Your task to perform on an android device: open a new tab in the chrome app Image 0: 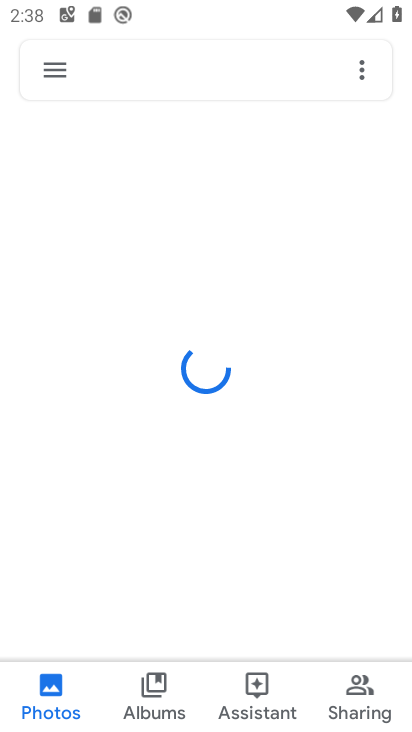
Step 0: press home button
Your task to perform on an android device: open a new tab in the chrome app Image 1: 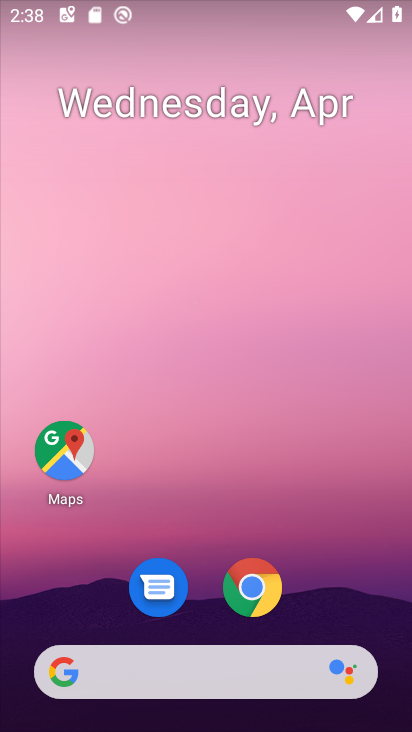
Step 1: drag from (368, 606) to (221, 78)
Your task to perform on an android device: open a new tab in the chrome app Image 2: 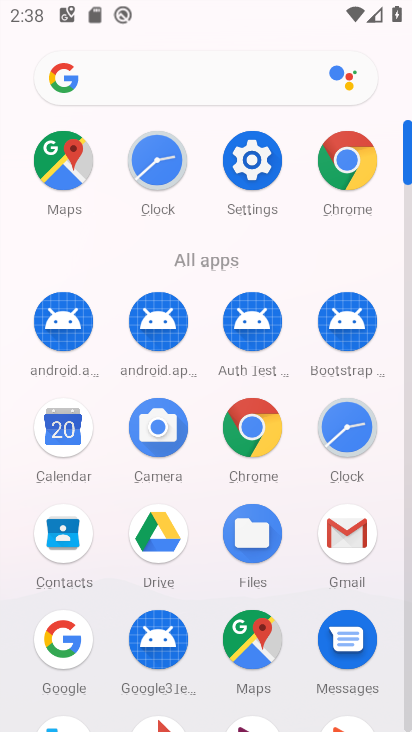
Step 2: click (243, 429)
Your task to perform on an android device: open a new tab in the chrome app Image 3: 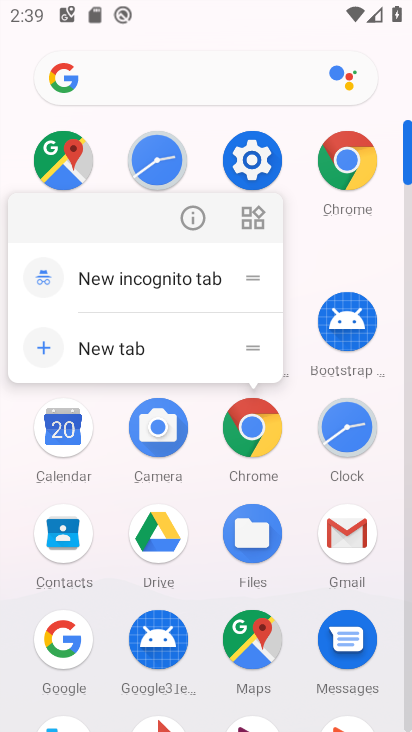
Step 3: click (254, 418)
Your task to perform on an android device: open a new tab in the chrome app Image 4: 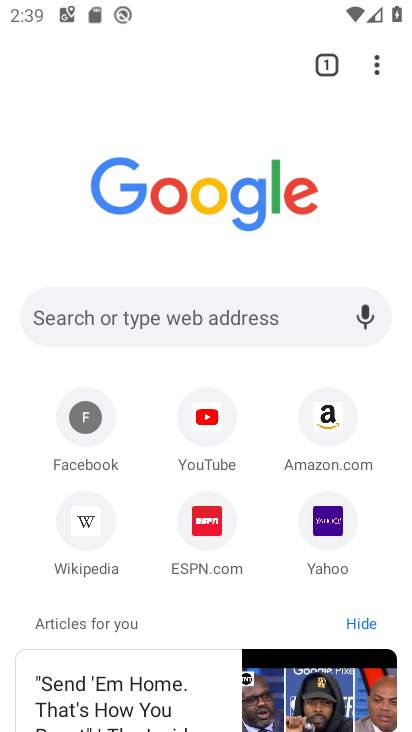
Step 4: click (318, 66)
Your task to perform on an android device: open a new tab in the chrome app Image 5: 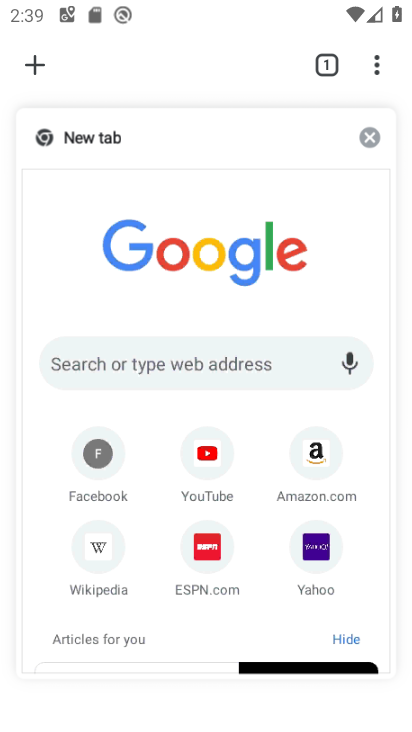
Step 5: click (41, 54)
Your task to perform on an android device: open a new tab in the chrome app Image 6: 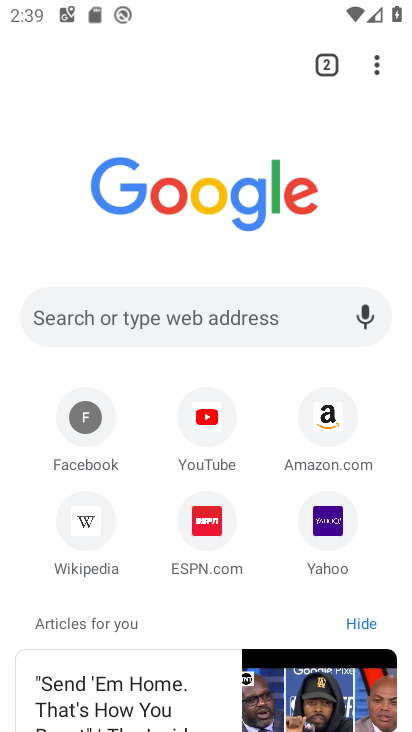
Step 6: task complete